Your task to perform on an android device: delete the emails in spam in the gmail app Image 0: 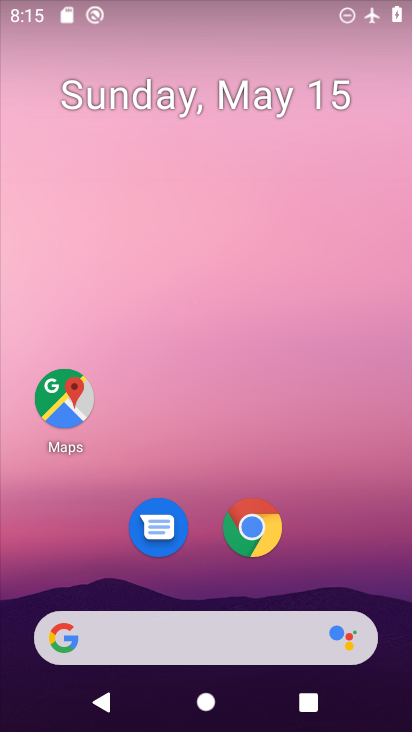
Step 0: drag from (202, 574) to (203, 244)
Your task to perform on an android device: delete the emails in spam in the gmail app Image 1: 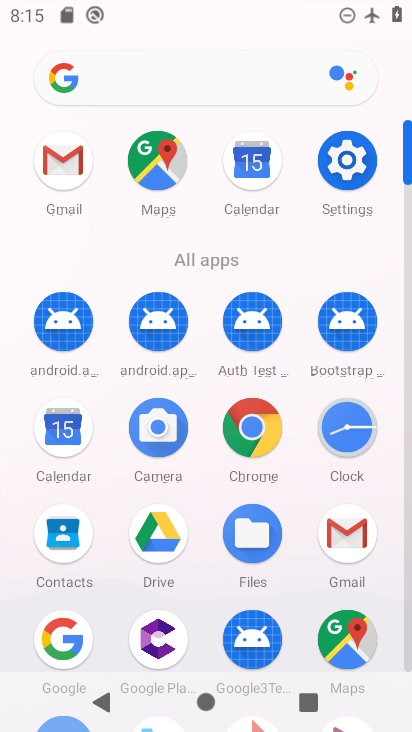
Step 1: click (72, 167)
Your task to perform on an android device: delete the emails in spam in the gmail app Image 2: 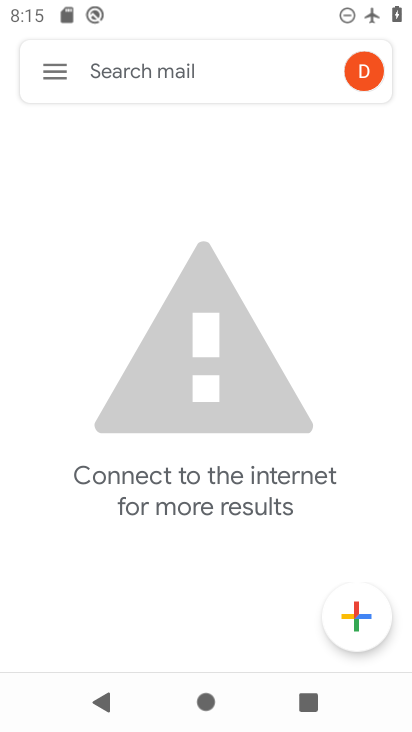
Step 2: click (70, 59)
Your task to perform on an android device: delete the emails in spam in the gmail app Image 3: 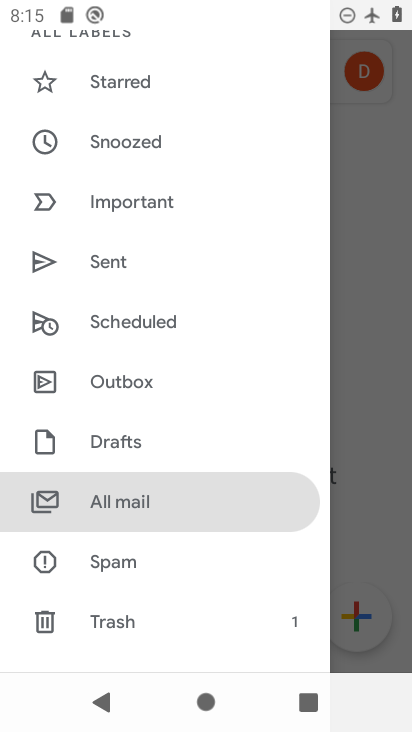
Step 3: click (113, 502)
Your task to perform on an android device: delete the emails in spam in the gmail app Image 4: 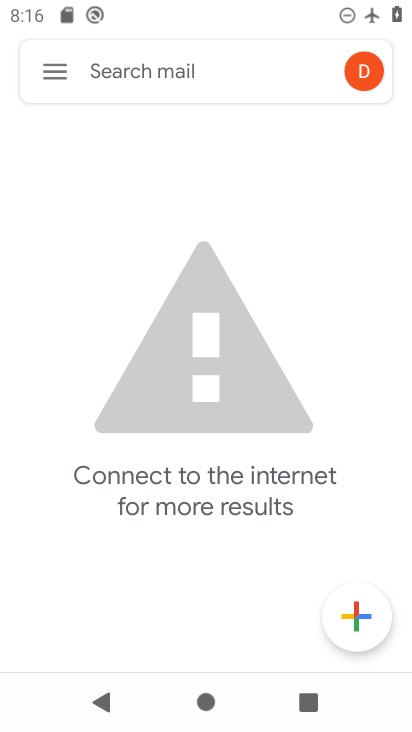
Step 4: task complete